Your task to perform on an android device: remove spam from my inbox in the gmail app Image 0: 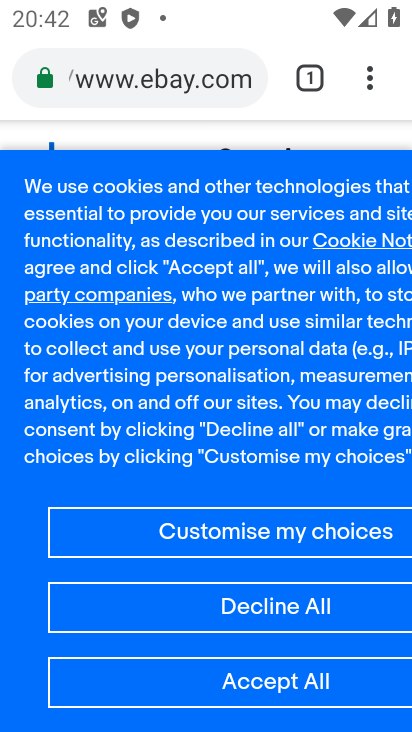
Step 0: press home button
Your task to perform on an android device: remove spam from my inbox in the gmail app Image 1: 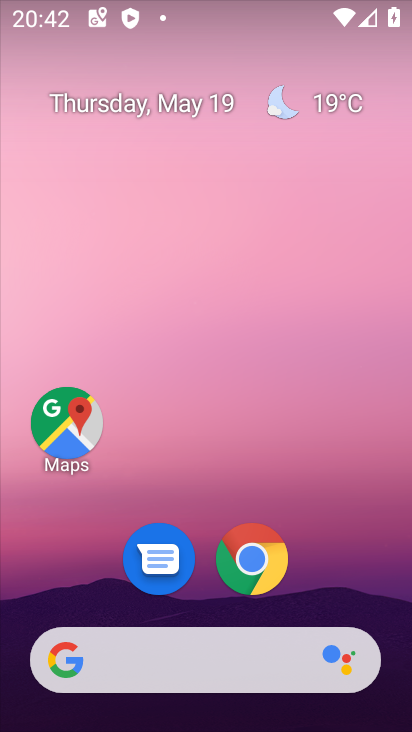
Step 1: drag from (156, 663) to (207, 272)
Your task to perform on an android device: remove spam from my inbox in the gmail app Image 2: 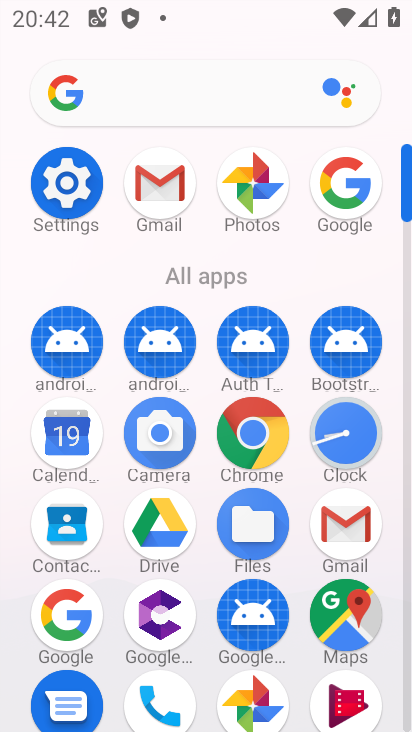
Step 2: click (157, 208)
Your task to perform on an android device: remove spam from my inbox in the gmail app Image 3: 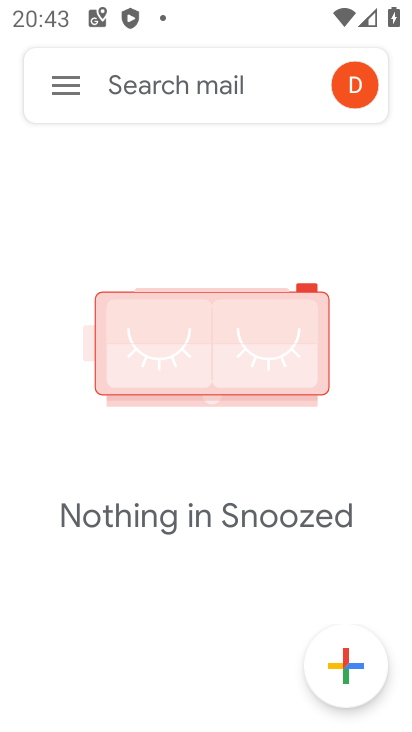
Step 3: click (68, 92)
Your task to perform on an android device: remove spam from my inbox in the gmail app Image 4: 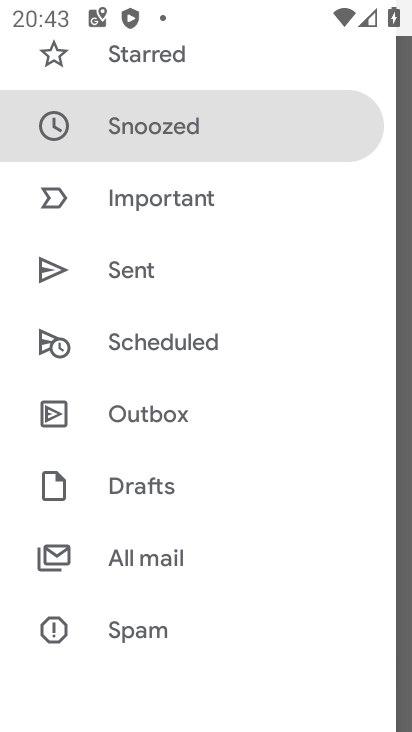
Step 4: click (133, 618)
Your task to perform on an android device: remove spam from my inbox in the gmail app Image 5: 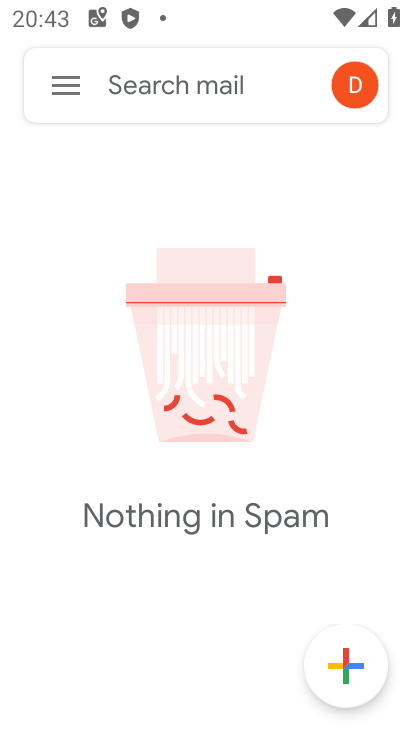
Step 5: task complete